Your task to perform on an android device: open a new tab in the chrome app Image 0: 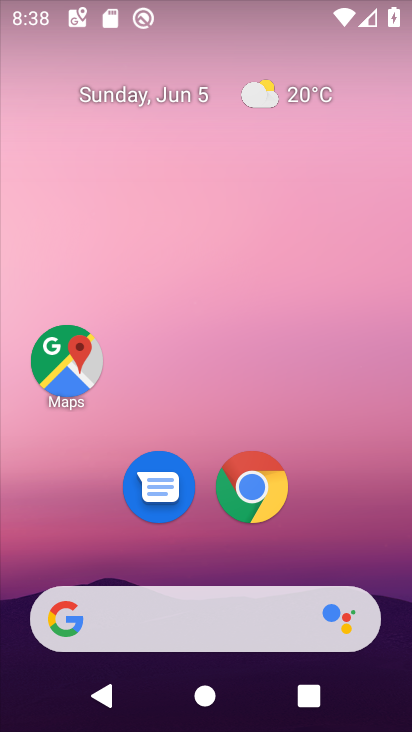
Step 0: click (237, 482)
Your task to perform on an android device: open a new tab in the chrome app Image 1: 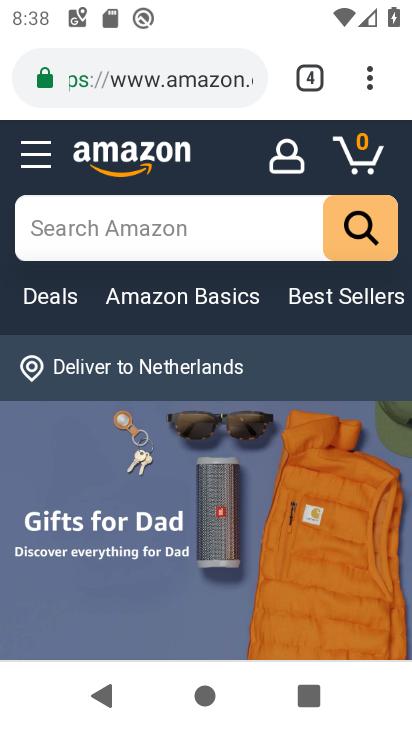
Step 1: click (366, 73)
Your task to perform on an android device: open a new tab in the chrome app Image 2: 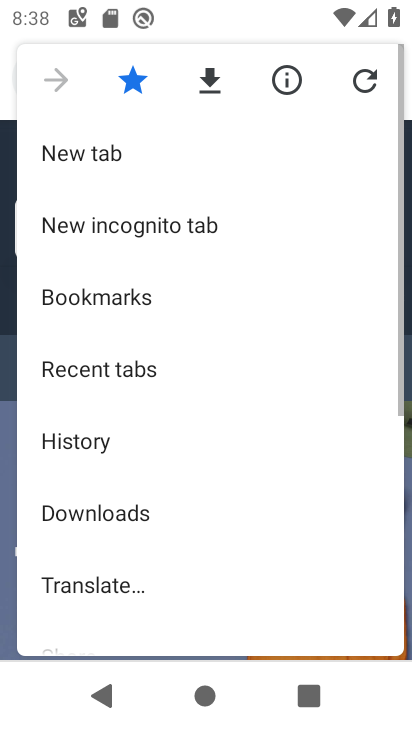
Step 2: click (80, 147)
Your task to perform on an android device: open a new tab in the chrome app Image 3: 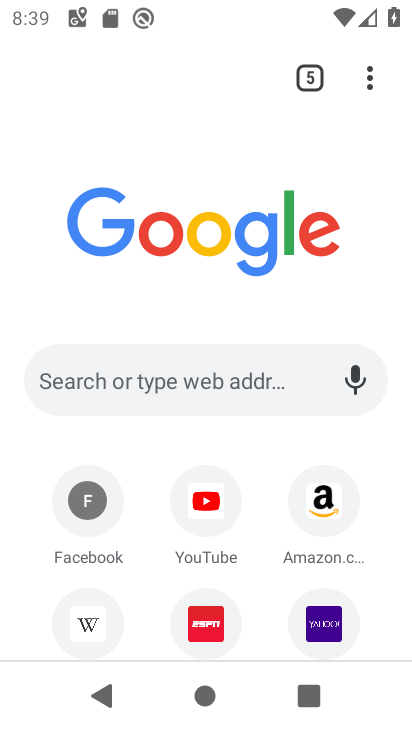
Step 3: task complete